Your task to perform on an android device: What's the weather today? Image 0: 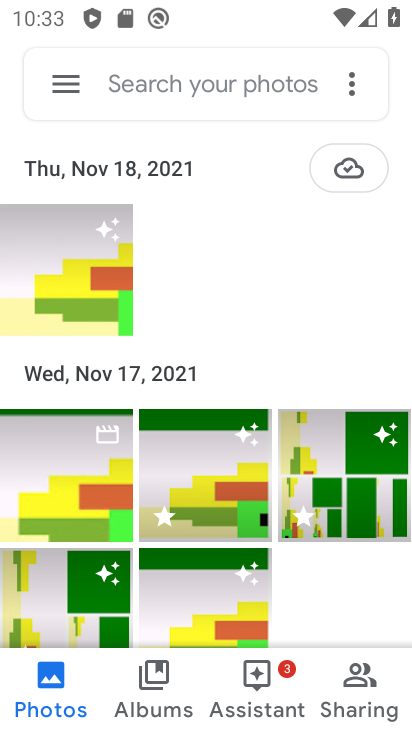
Step 0: press home button
Your task to perform on an android device: What's the weather today? Image 1: 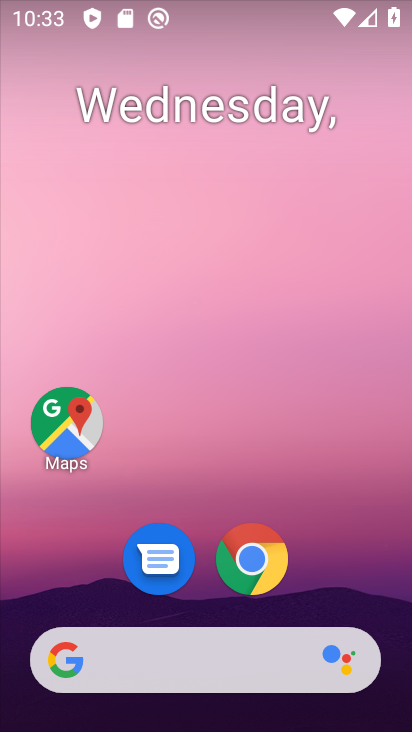
Step 1: drag from (371, 551) to (286, 57)
Your task to perform on an android device: What's the weather today? Image 2: 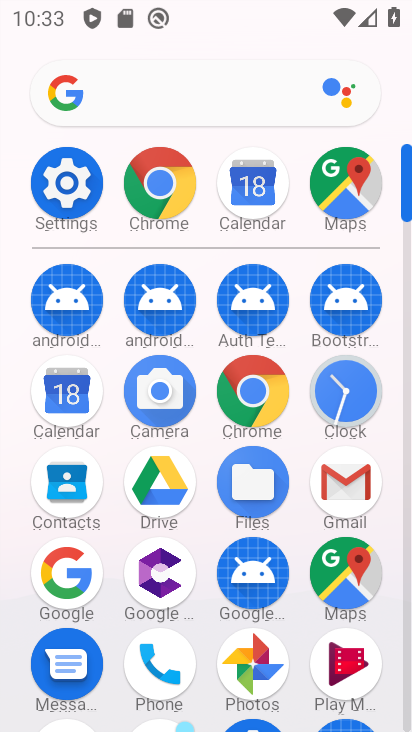
Step 2: press home button
Your task to perform on an android device: What's the weather today? Image 3: 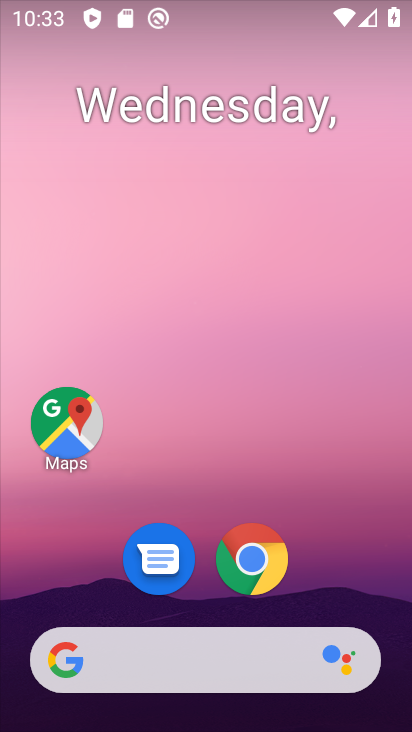
Step 3: drag from (398, 552) to (304, 72)
Your task to perform on an android device: What's the weather today? Image 4: 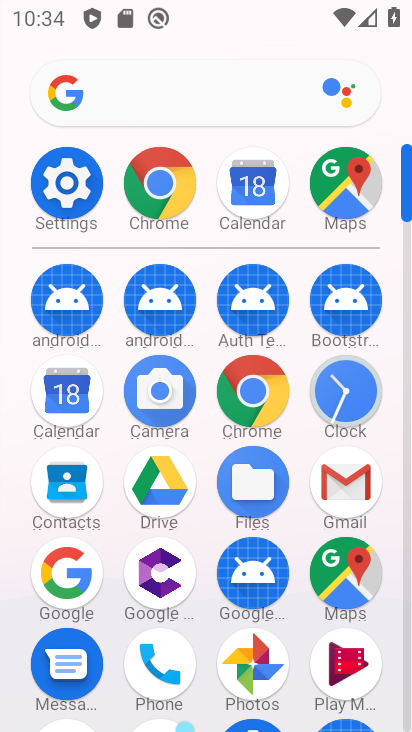
Step 4: click (72, 576)
Your task to perform on an android device: What's the weather today? Image 5: 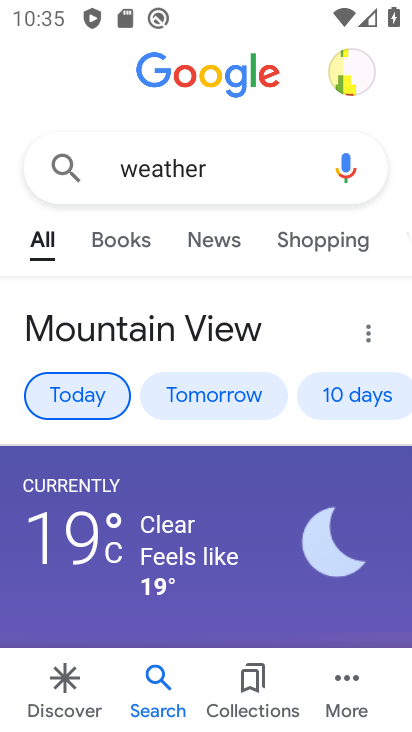
Step 5: task complete